Your task to perform on an android device: Open the web browser Image 0: 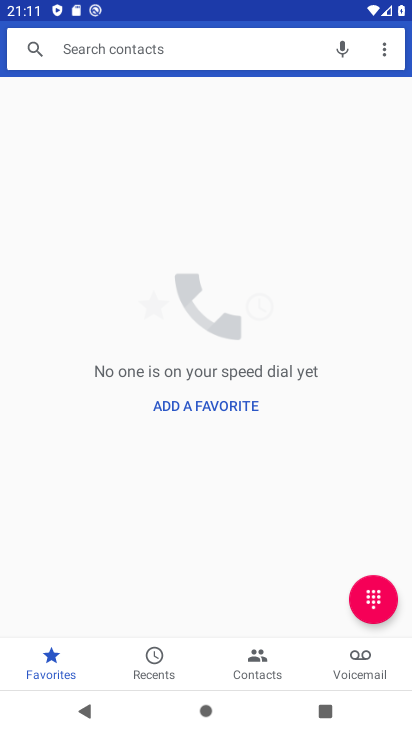
Step 0: press home button
Your task to perform on an android device: Open the web browser Image 1: 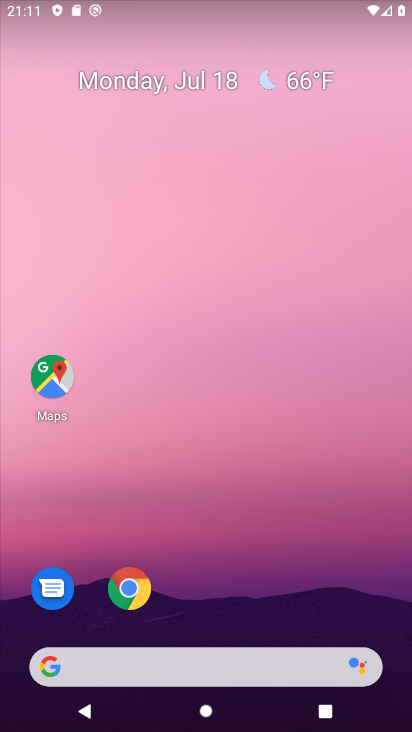
Step 1: click (134, 589)
Your task to perform on an android device: Open the web browser Image 2: 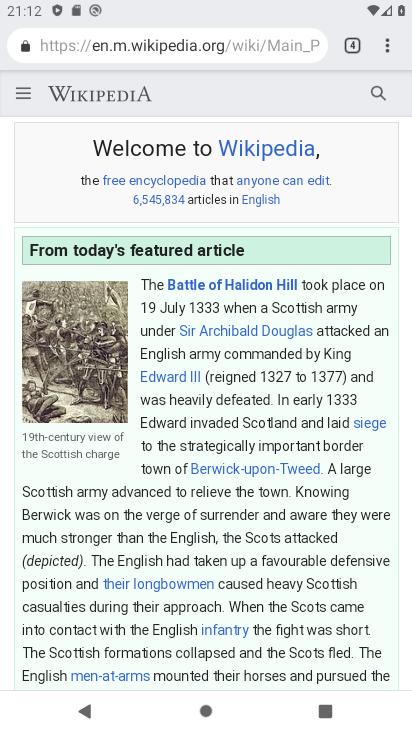
Step 2: task complete